Your task to perform on an android device: What's the weather going to be tomorrow? Image 0: 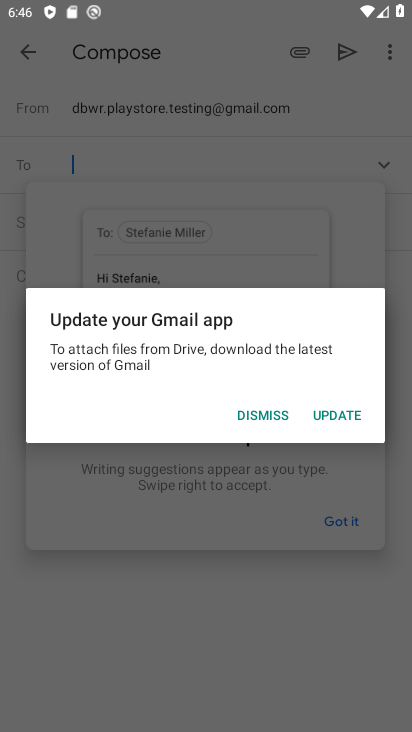
Step 0: press home button
Your task to perform on an android device: What's the weather going to be tomorrow? Image 1: 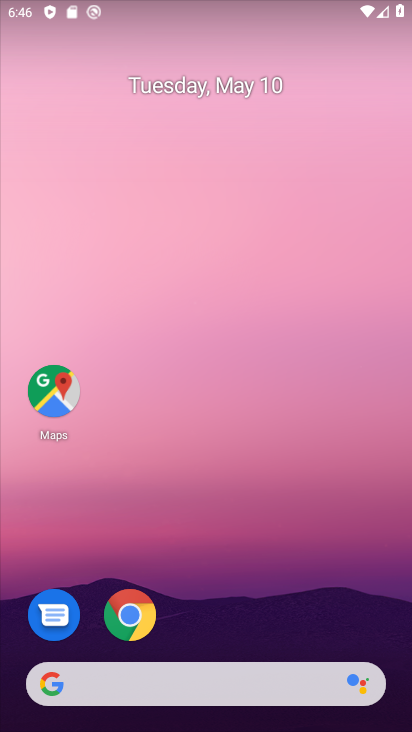
Step 1: click (222, 676)
Your task to perform on an android device: What's the weather going to be tomorrow? Image 2: 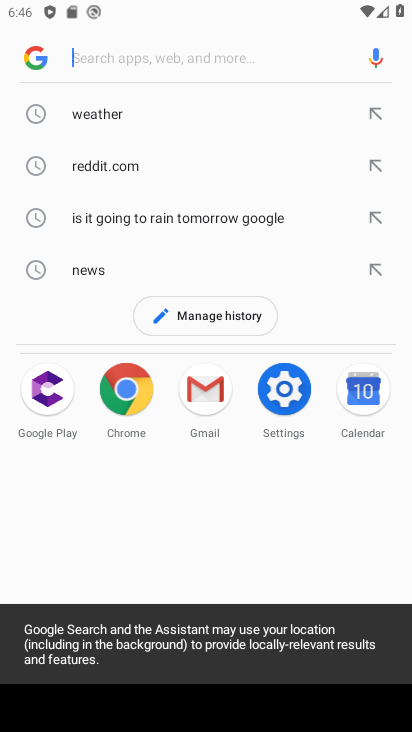
Step 2: click (108, 112)
Your task to perform on an android device: What's the weather going to be tomorrow? Image 3: 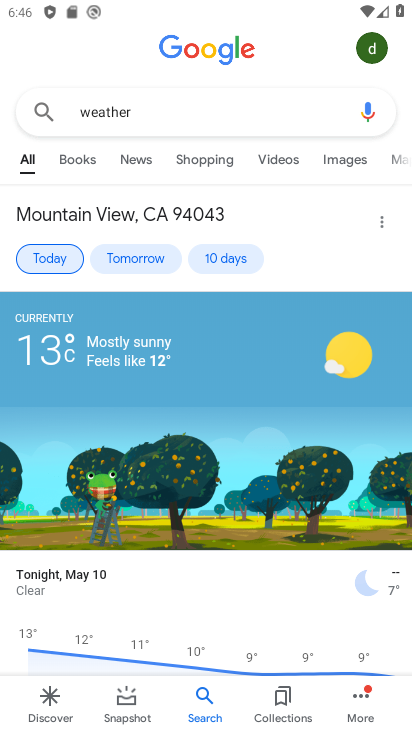
Step 3: task complete